Your task to perform on an android device: open a bookmark in the chrome app Image 0: 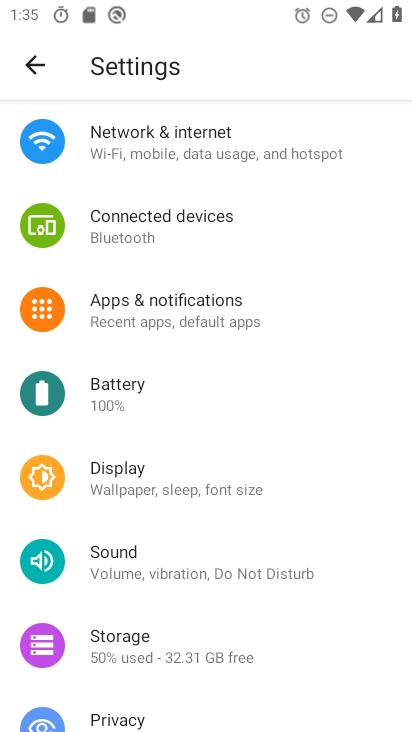
Step 0: press home button
Your task to perform on an android device: open a bookmark in the chrome app Image 1: 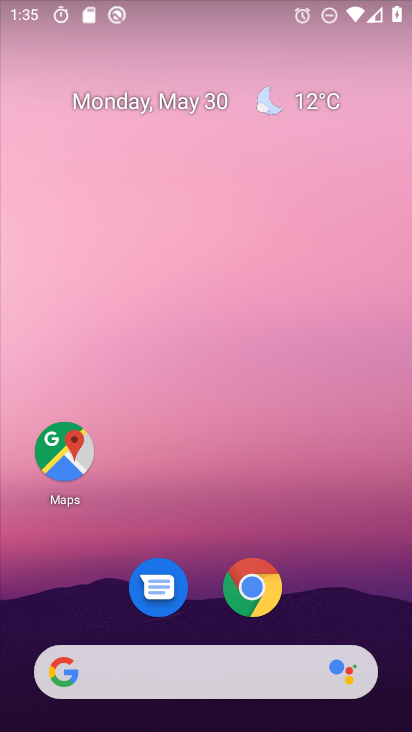
Step 1: click (248, 585)
Your task to perform on an android device: open a bookmark in the chrome app Image 2: 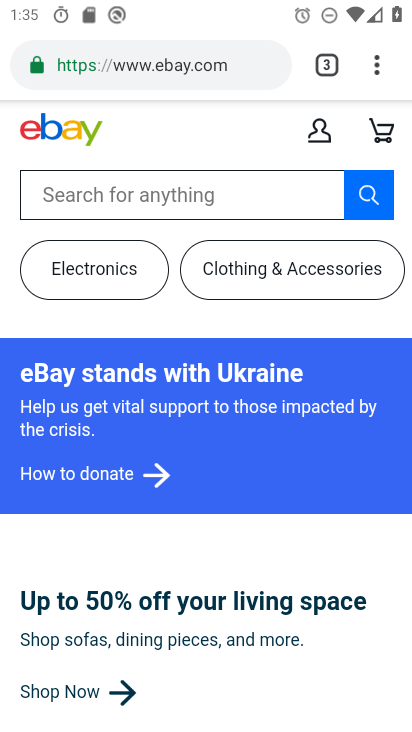
Step 2: drag from (374, 59) to (232, 252)
Your task to perform on an android device: open a bookmark in the chrome app Image 3: 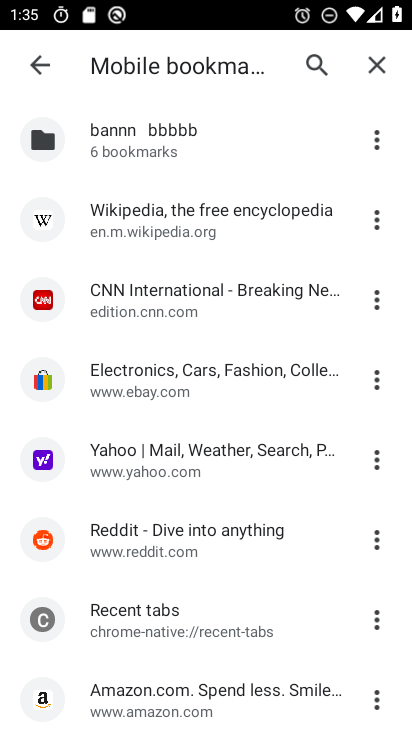
Step 3: click (150, 236)
Your task to perform on an android device: open a bookmark in the chrome app Image 4: 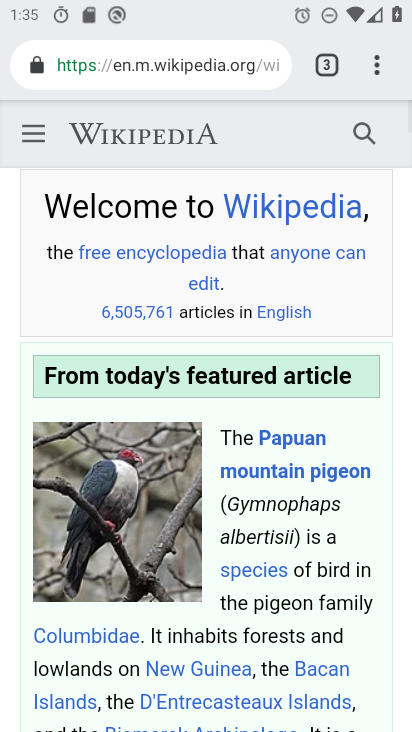
Step 4: task complete